Your task to perform on an android device: Open Chrome and go to settings Image 0: 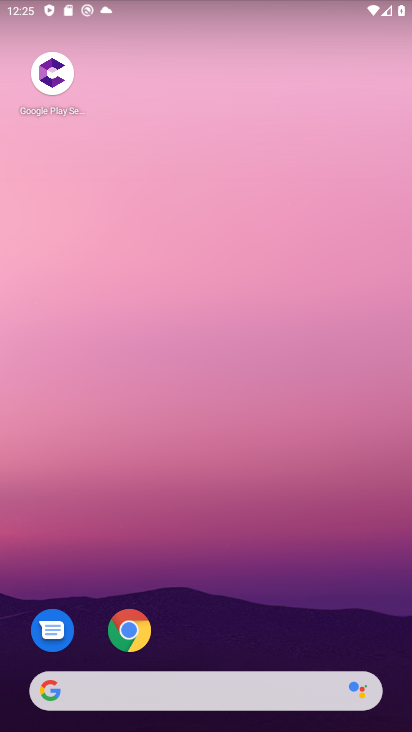
Step 0: click (130, 630)
Your task to perform on an android device: Open Chrome and go to settings Image 1: 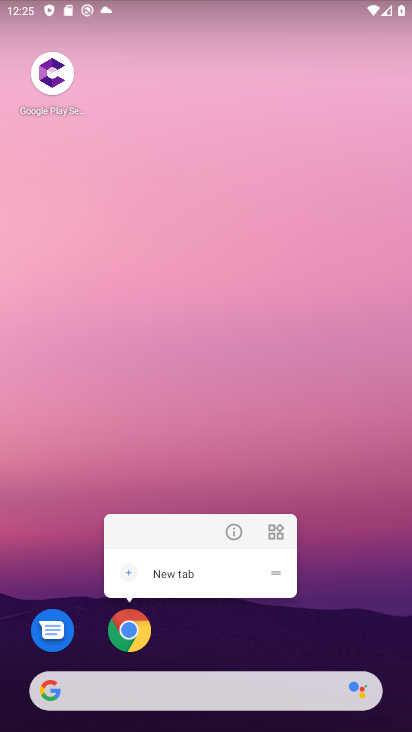
Step 1: drag from (274, 613) to (300, 108)
Your task to perform on an android device: Open Chrome and go to settings Image 2: 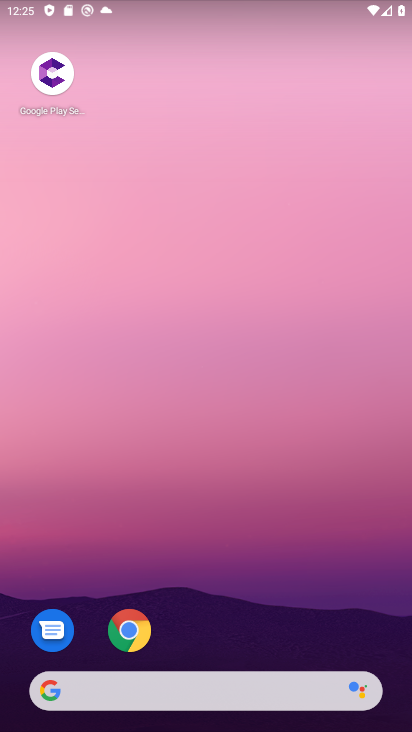
Step 2: drag from (216, 665) to (279, 94)
Your task to perform on an android device: Open Chrome and go to settings Image 3: 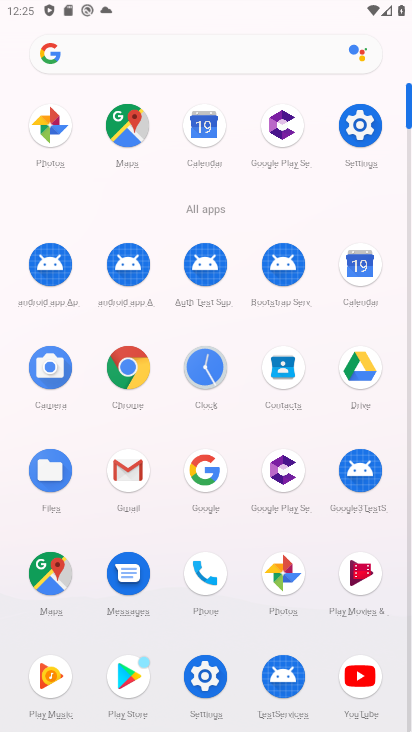
Step 3: click (129, 374)
Your task to perform on an android device: Open Chrome and go to settings Image 4: 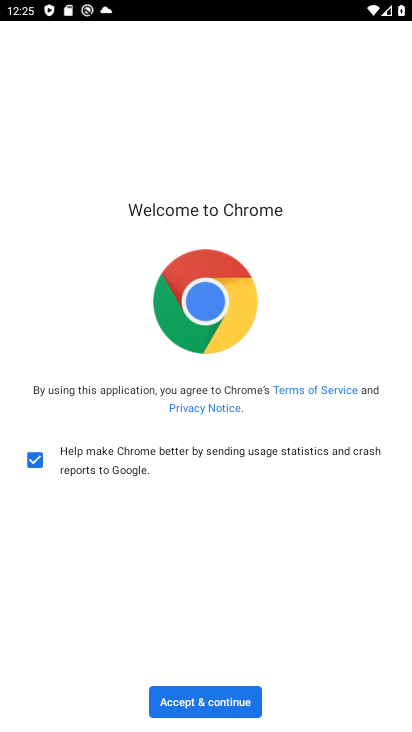
Step 4: click (211, 700)
Your task to perform on an android device: Open Chrome and go to settings Image 5: 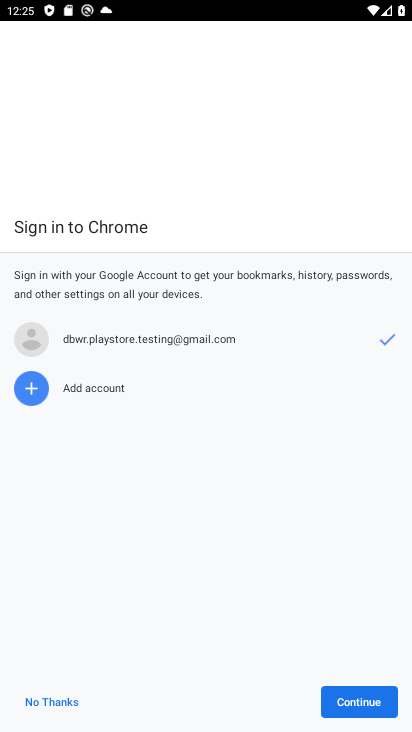
Step 5: click (362, 703)
Your task to perform on an android device: Open Chrome and go to settings Image 6: 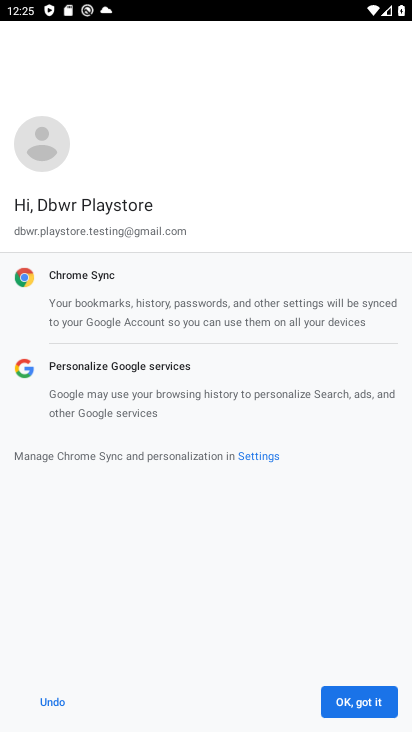
Step 6: click (358, 704)
Your task to perform on an android device: Open Chrome and go to settings Image 7: 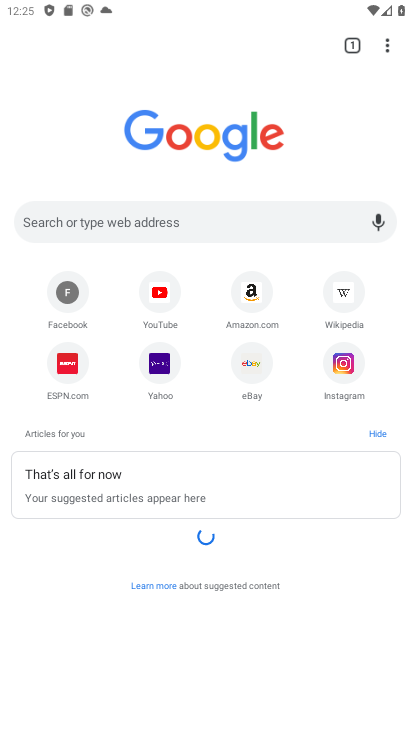
Step 7: click (391, 55)
Your task to perform on an android device: Open Chrome and go to settings Image 8: 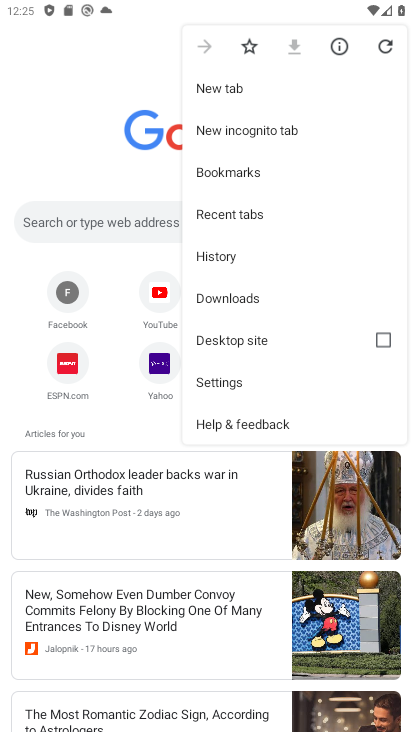
Step 8: click (298, 393)
Your task to perform on an android device: Open Chrome and go to settings Image 9: 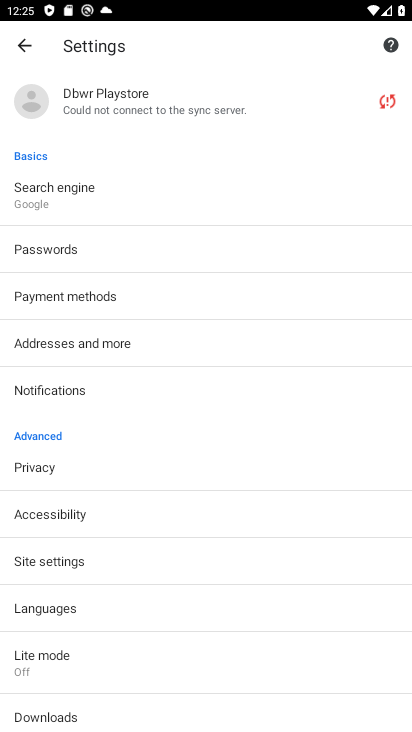
Step 9: task complete